Your task to perform on an android device: Open CNN.com Image 0: 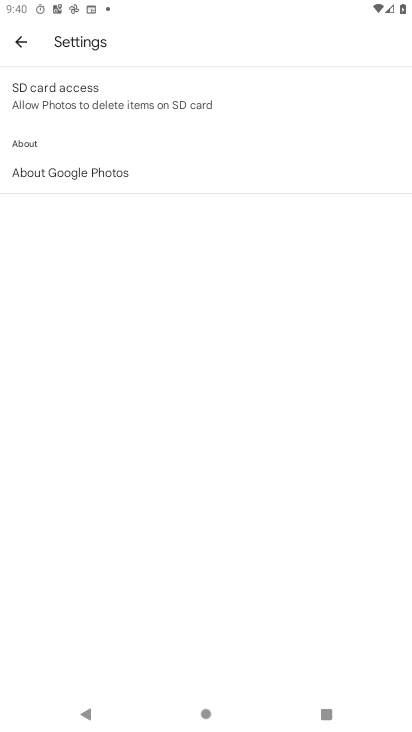
Step 0: press home button
Your task to perform on an android device: Open CNN.com Image 1: 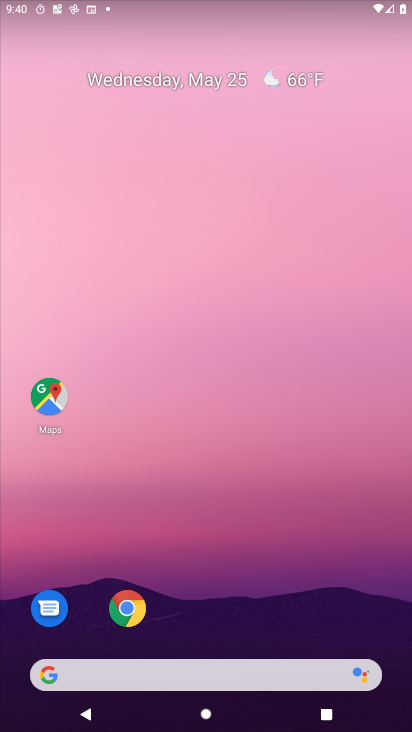
Step 1: click (128, 608)
Your task to perform on an android device: Open CNN.com Image 2: 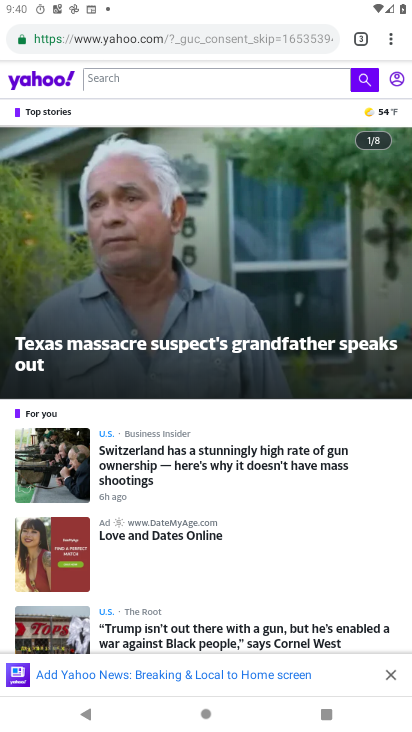
Step 2: click (390, 42)
Your task to perform on an android device: Open CNN.com Image 3: 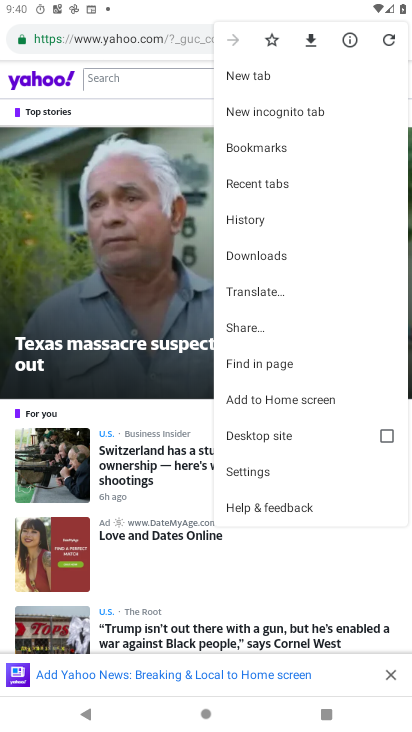
Step 3: click (259, 80)
Your task to perform on an android device: Open CNN.com Image 4: 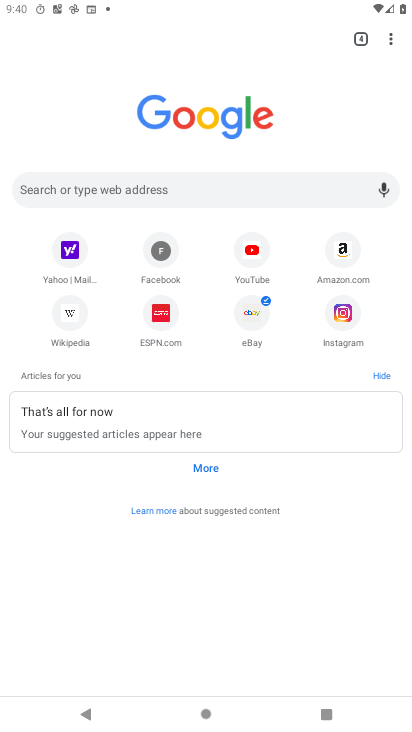
Step 4: click (142, 188)
Your task to perform on an android device: Open CNN.com Image 5: 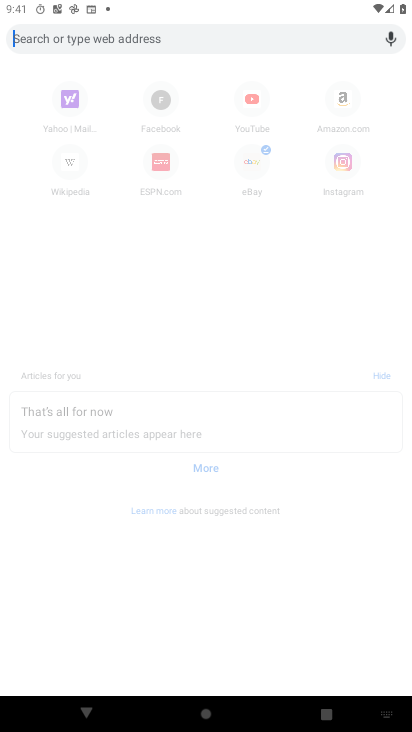
Step 5: type "CNN.com"
Your task to perform on an android device: Open CNN.com Image 6: 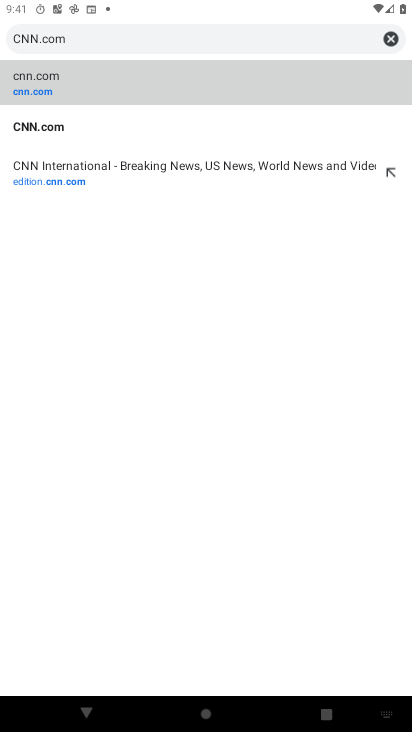
Step 6: click (82, 84)
Your task to perform on an android device: Open CNN.com Image 7: 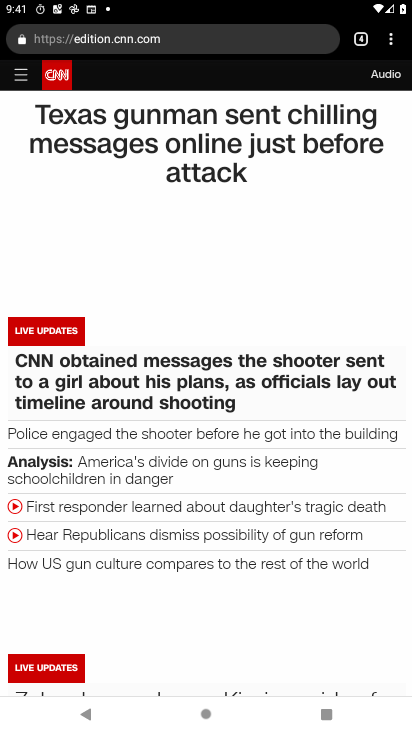
Step 7: task complete